Your task to perform on an android device: Go to battery settings Image 0: 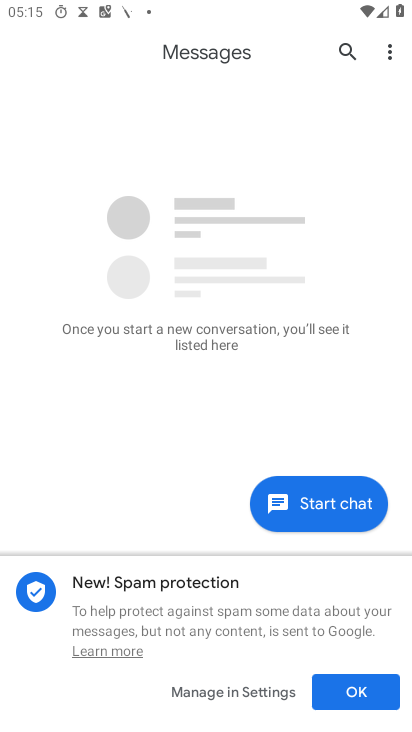
Step 0: press home button
Your task to perform on an android device: Go to battery settings Image 1: 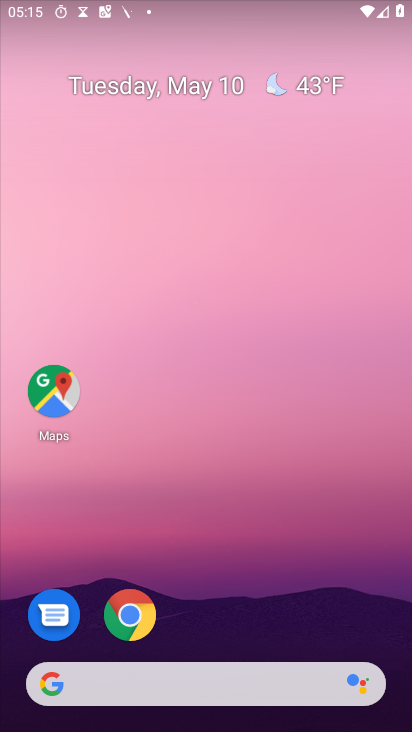
Step 1: drag from (264, 623) to (282, 18)
Your task to perform on an android device: Go to battery settings Image 2: 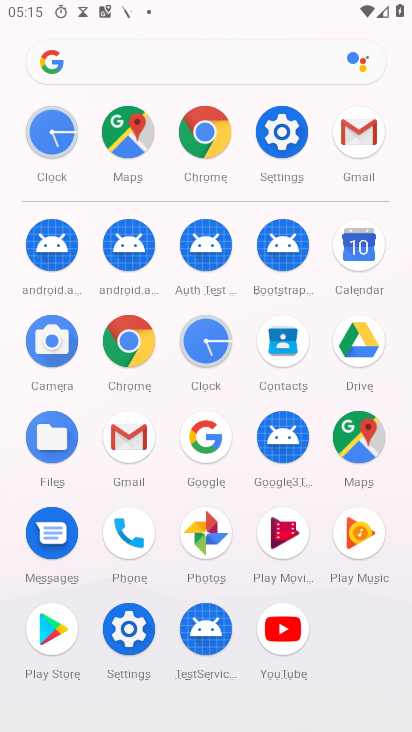
Step 2: click (299, 133)
Your task to perform on an android device: Go to battery settings Image 3: 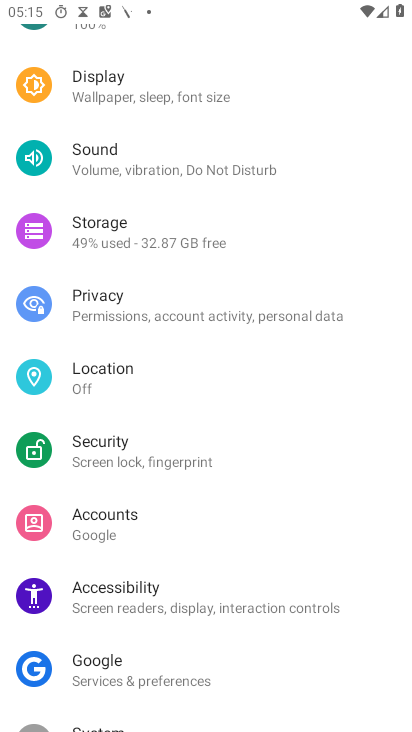
Step 3: drag from (176, 238) to (183, 654)
Your task to perform on an android device: Go to battery settings Image 4: 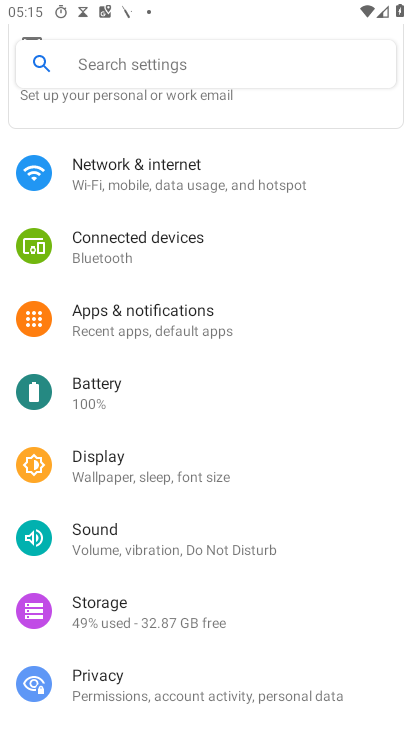
Step 4: click (122, 395)
Your task to perform on an android device: Go to battery settings Image 5: 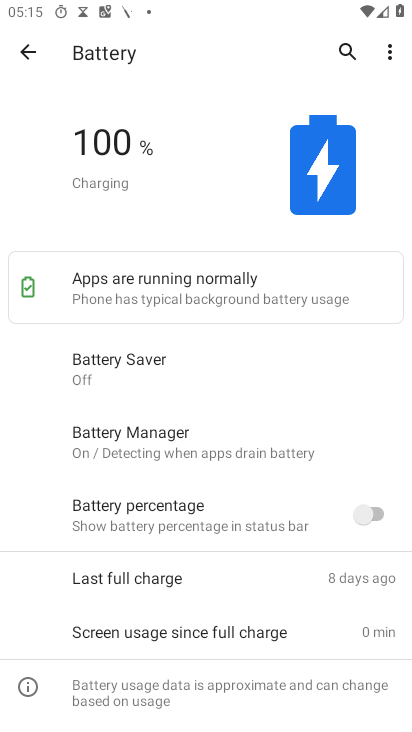
Step 5: task complete